Your task to perform on an android device: Open calendar and show me the second week of next month Image 0: 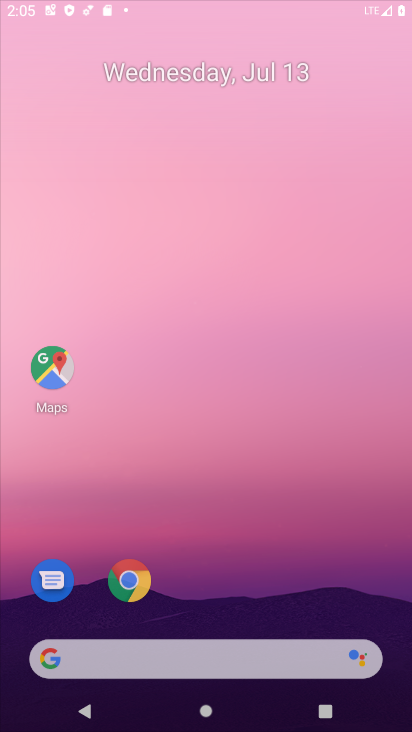
Step 0: click (241, 245)
Your task to perform on an android device: Open calendar and show me the second week of next month Image 1: 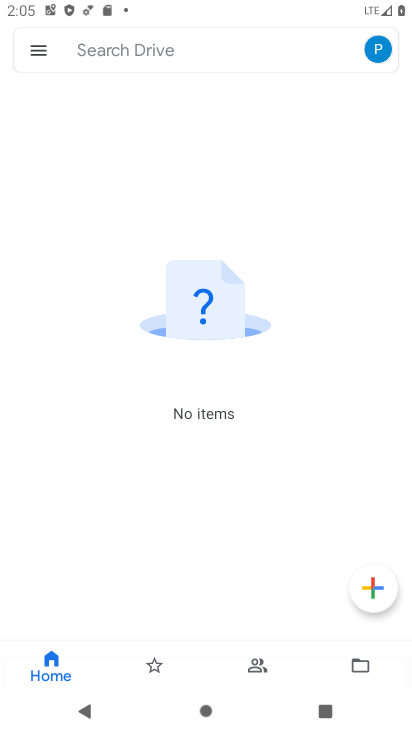
Step 1: press home button
Your task to perform on an android device: Open calendar and show me the second week of next month Image 2: 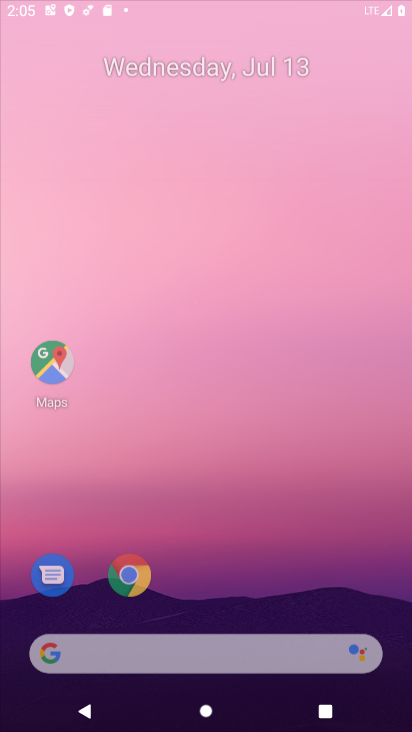
Step 2: drag from (192, 486) to (291, 160)
Your task to perform on an android device: Open calendar and show me the second week of next month Image 3: 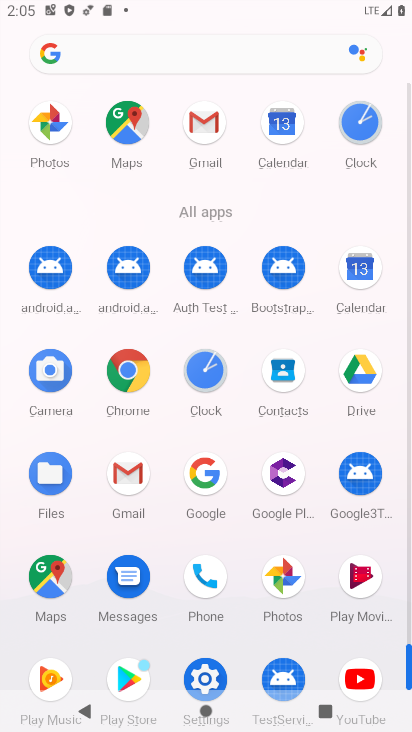
Step 3: click (124, 58)
Your task to perform on an android device: Open calendar and show me the second week of next month Image 4: 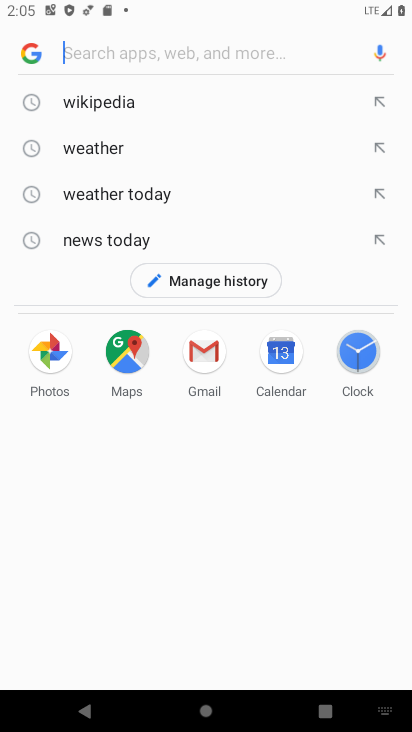
Step 4: press home button
Your task to perform on an android device: Open calendar and show me the second week of next month Image 5: 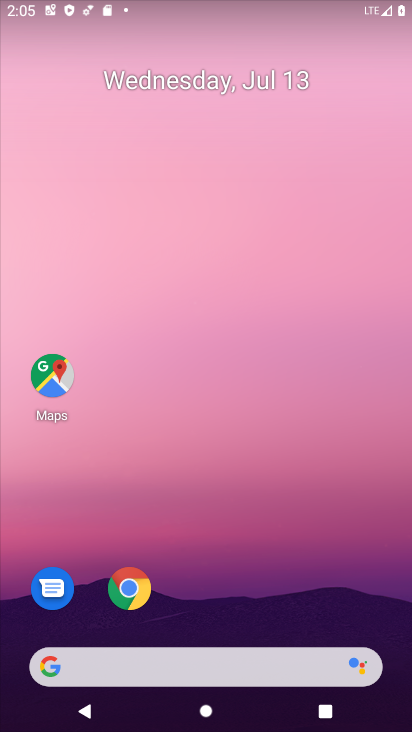
Step 5: drag from (191, 471) to (224, 167)
Your task to perform on an android device: Open calendar and show me the second week of next month Image 6: 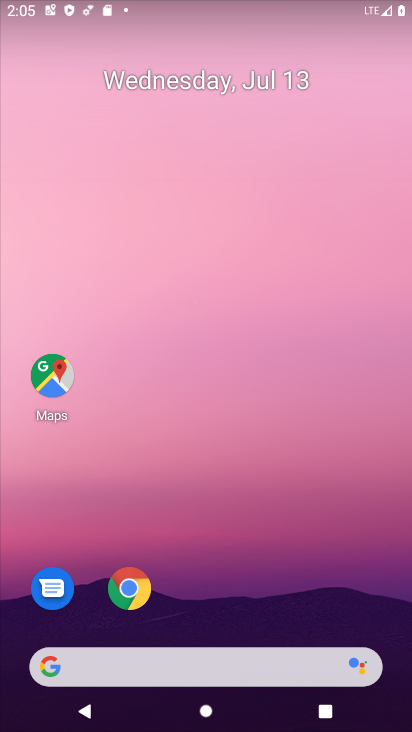
Step 6: drag from (222, 571) to (286, 161)
Your task to perform on an android device: Open calendar and show me the second week of next month Image 7: 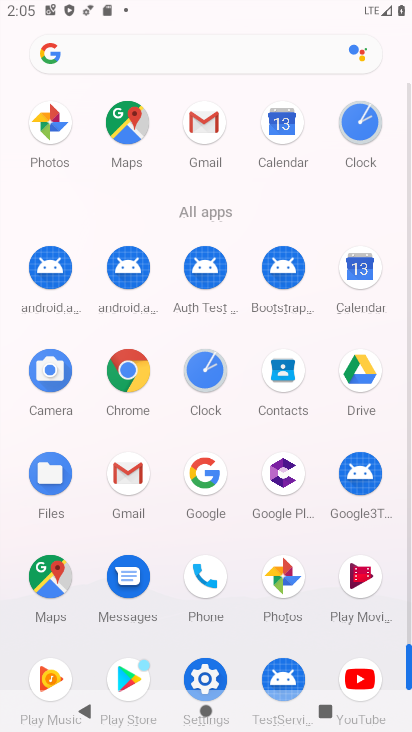
Step 7: click (351, 268)
Your task to perform on an android device: Open calendar and show me the second week of next month Image 8: 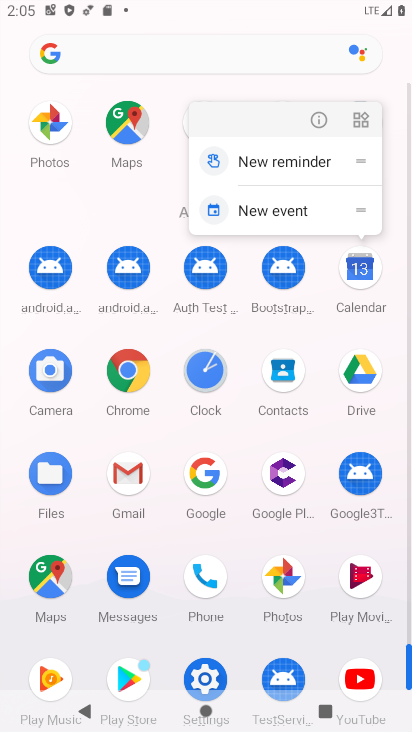
Step 8: click (317, 131)
Your task to perform on an android device: Open calendar and show me the second week of next month Image 9: 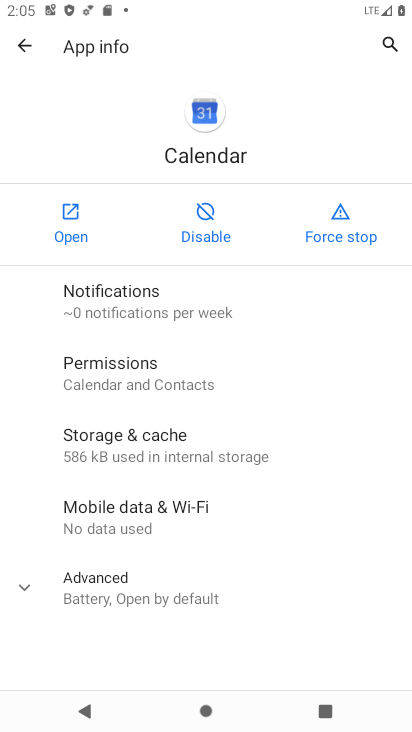
Step 9: click (77, 226)
Your task to perform on an android device: Open calendar and show me the second week of next month Image 10: 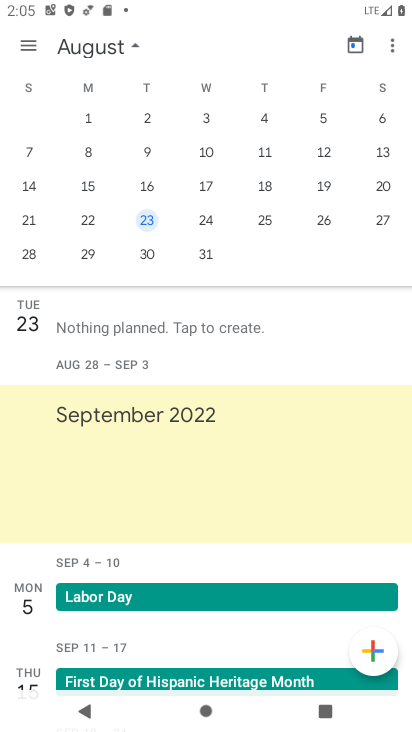
Step 10: drag from (205, 605) to (252, 253)
Your task to perform on an android device: Open calendar and show me the second week of next month Image 11: 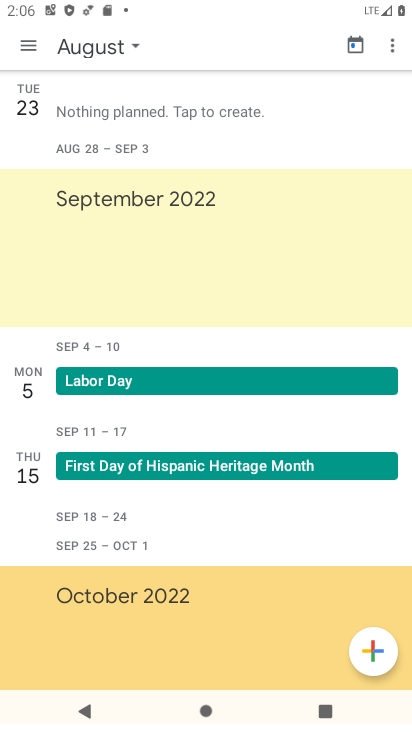
Step 11: drag from (260, 141) to (249, 568)
Your task to perform on an android device: Open calendar and show me the second week of next month Image 12: 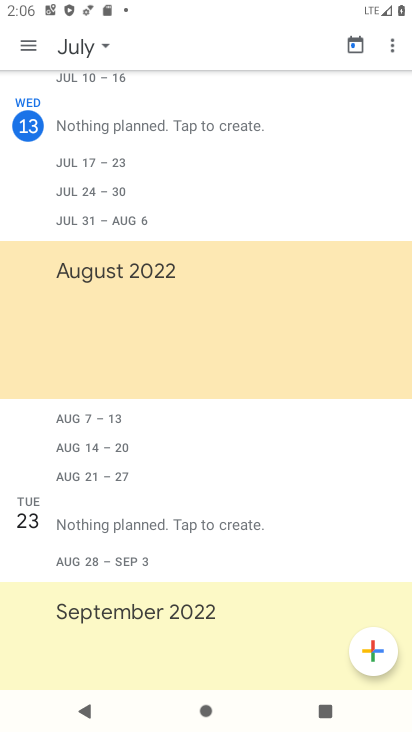
Step 12: drag from (196, 548) to (256, 317)
Your task to perform on an android device: Open calendar and show me the second week of next month Image 13: 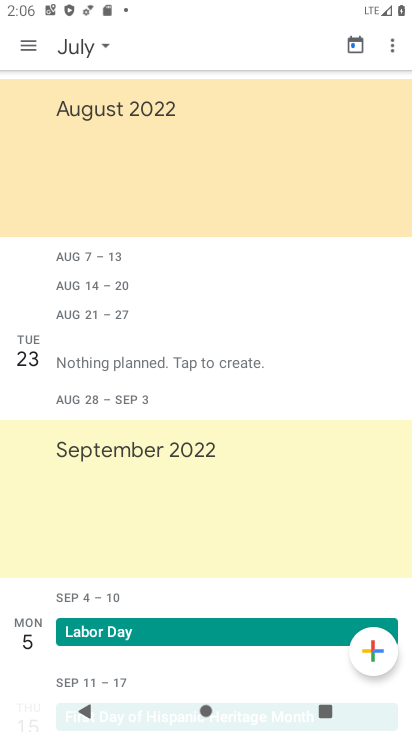
Step 13: drag from (206, 330) to (273, 622)
Your task to perform on an android device: Open calendar and show me the second week of next month Image 14: 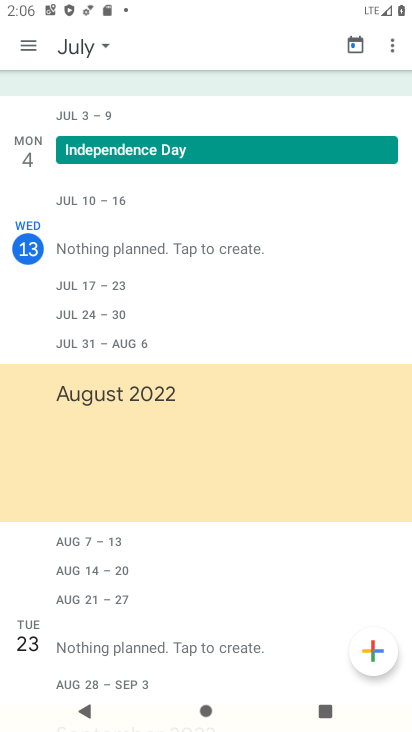
Step 14: click (354, 40)
Your task to perform on an android device: Open calendar and show me the second week of next month Image 15: 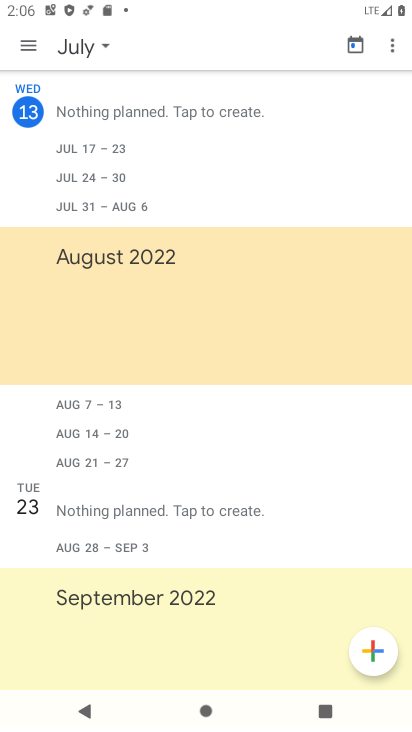
Step 15: click (68, 54)
Your task to perform on an android device: Open calendar and show me the second week of next month Image 16: 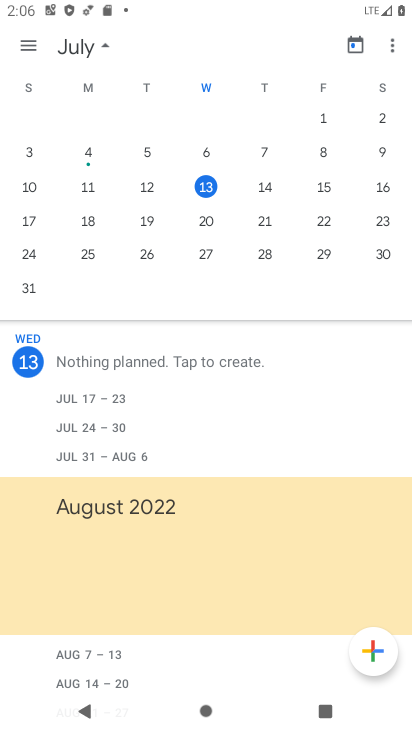
Step 16: drag from (358, 223) to (19, 224)
Your task to perform on an android device: Open calendar and show me the second week of next month Image 17: 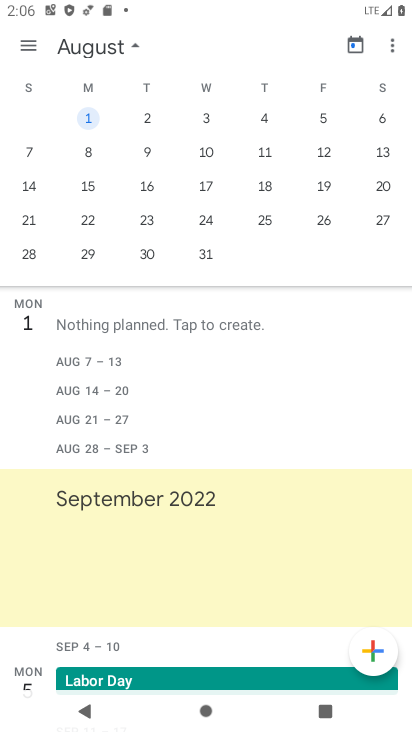
Step 17: click (208, 146)
Your task to perform on an android device: Open calendar and show me the second week of next month Image 18: 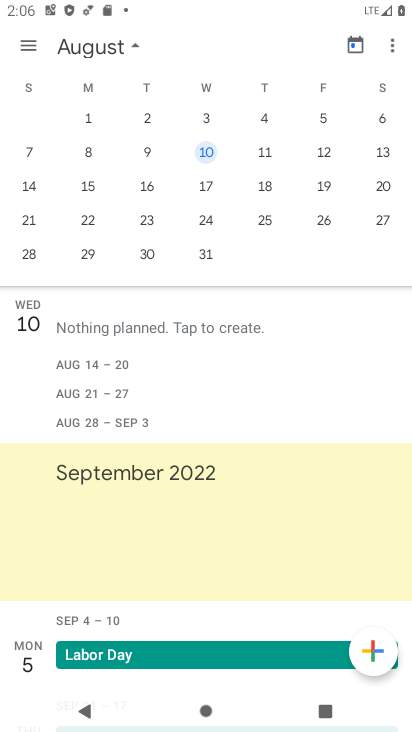
Step 18: task complete